Your task to perform on an android device: Open Maps and search for coffee Image 0: 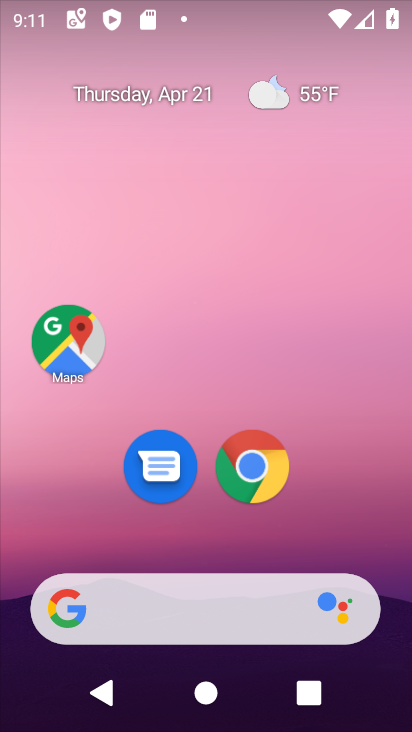
Step 0: click (66, 356)
Your task to perform on an android device: Open Maps and search for coffee Image 1: 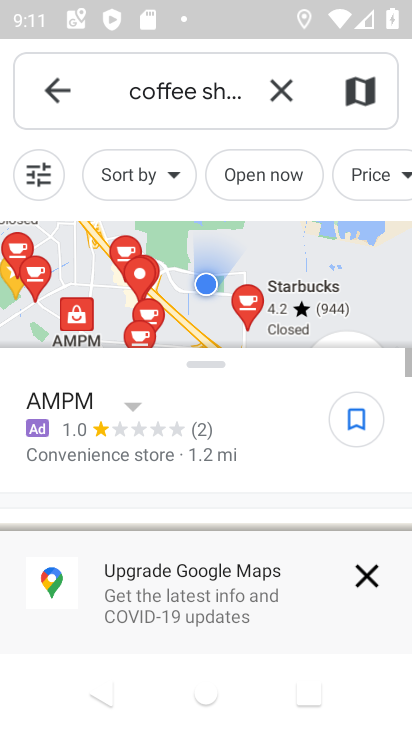
Step 1: click (280, 93)
Your task to perform on an android device: Open Maps and search for coffee Image 2: 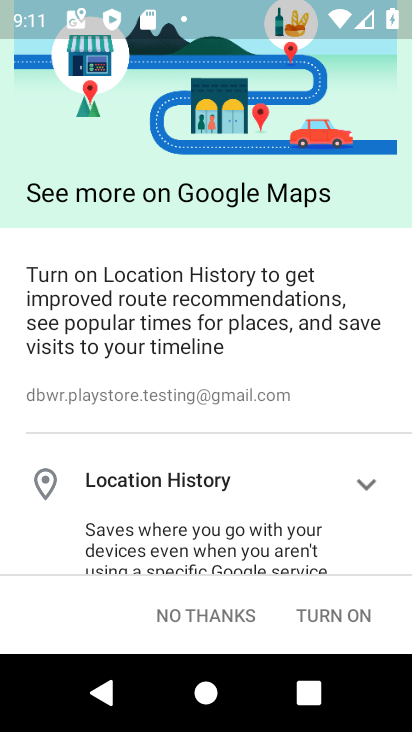
Step 2: press back button
Your task to perform on an android device: Open Maps and search for coffee Image 3: 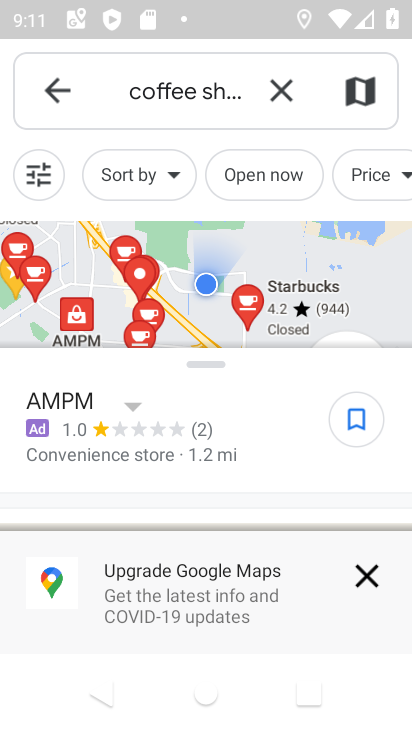
Step 3: click (272, 95)
Your task to perform on an android device: Open Maps and search for coffee Image 4: 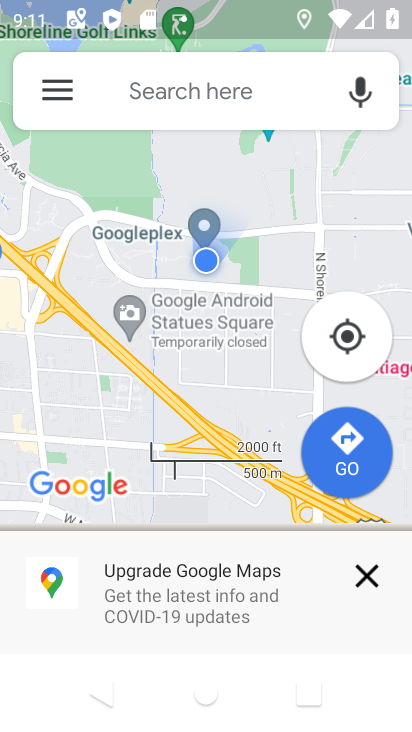
Step 4: click (241, 89)
Your task to perform on an android device: Open Maps and search for coffee Image 5: 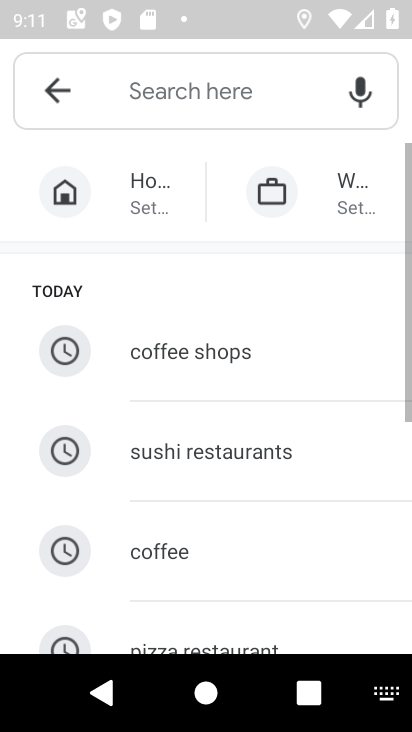
Step 5: click (184, 549)
Your task to perform on an android device: Open Maps and search for coffee Image 6: 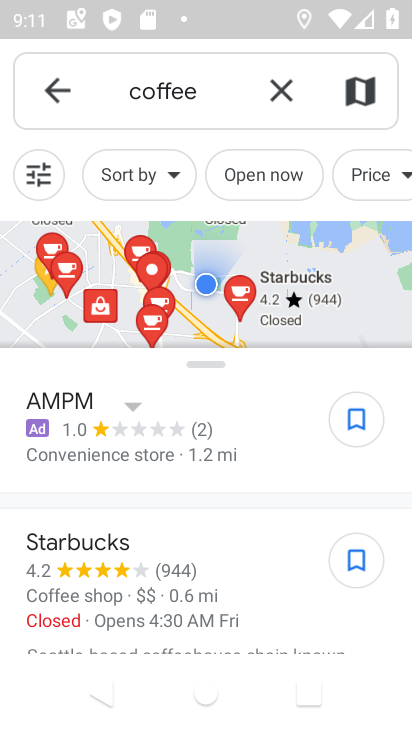
Step 6: task complete